Your task to perform on an android device: Go to notification settings Image 0: 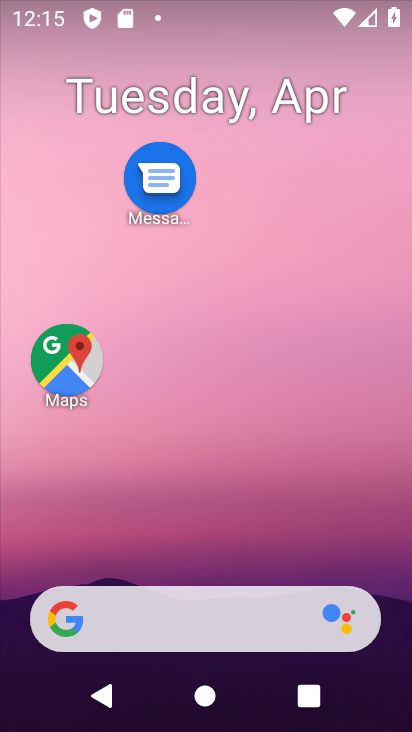
Step 0: drag from (214, 721) to (284, 6)
Your task to perform on an android device: Go to notification settings Image 1: 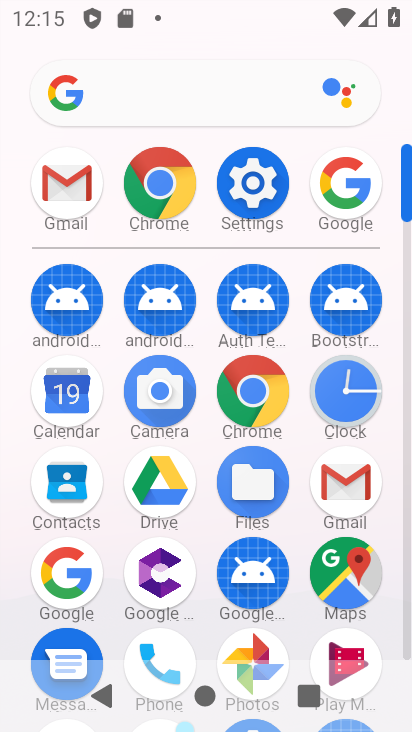
Step 1: click (254, 181)
Your task to perform on an android device: Go to notification settings Image 2: 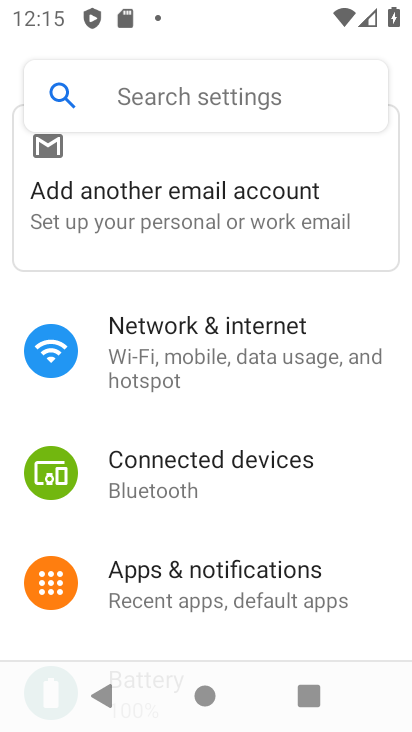
Step 2: click (243, 586)
Your task to perform on an android device: Go to notification settings Image 3: 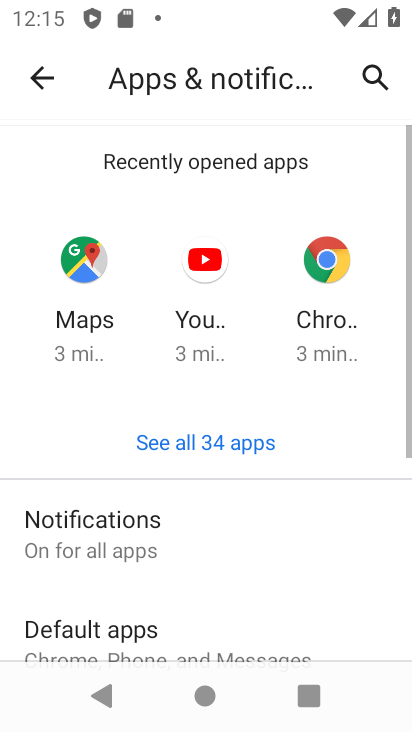
Step 3: drag from (227, 613) to (230, 260)
Your task to perform on an android device: Go to notification settings Image 4: 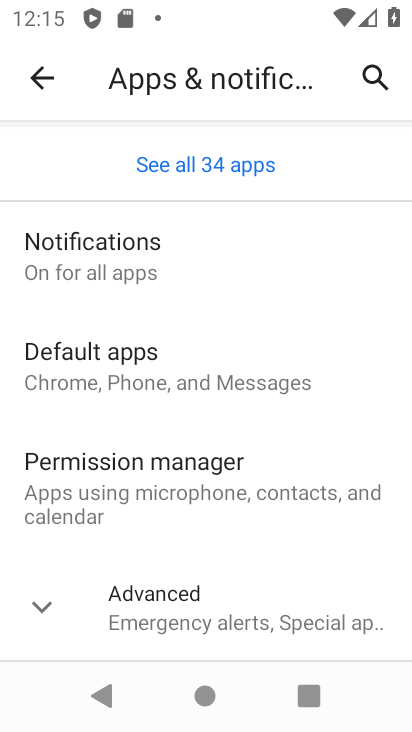
Step 4: click (101, 268)
Your task to perform on an android device: Go to notification settings Image 5: 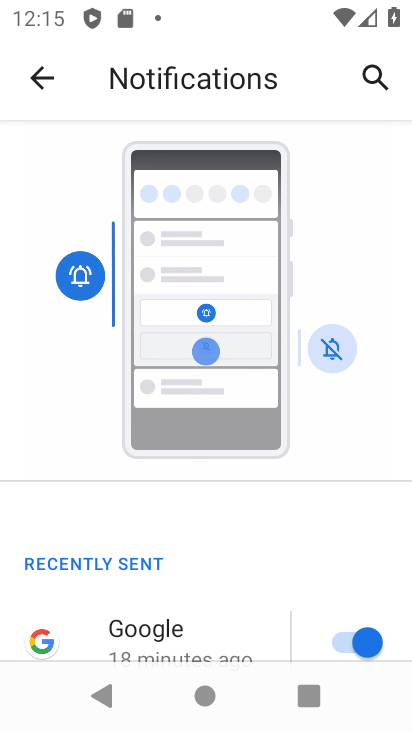
Step 5: task complete